Your task to perform on an android device: clear all cookies in the chrome app Image 0: 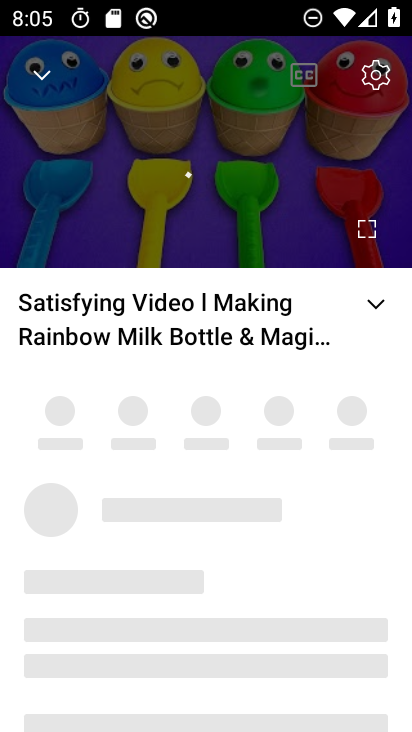
Step 0: press home button
Your task to perform on an android device: clear all cookies in the chrome app Image 1: 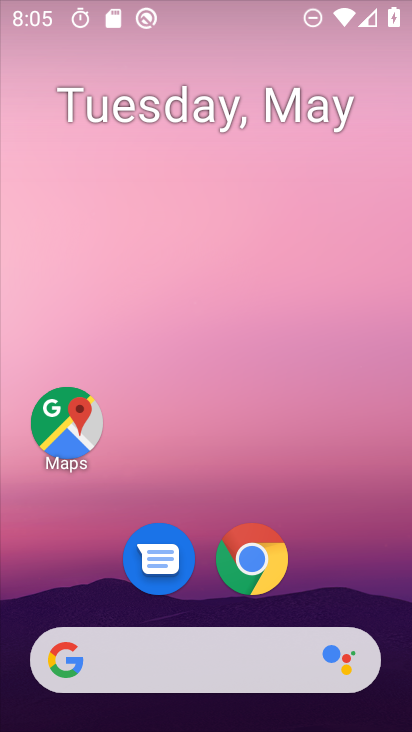
Step 1: drag from (381, 638) to (315, 12)
Your task to perform on an android device: clear all cookies in the chrome app Image 2: 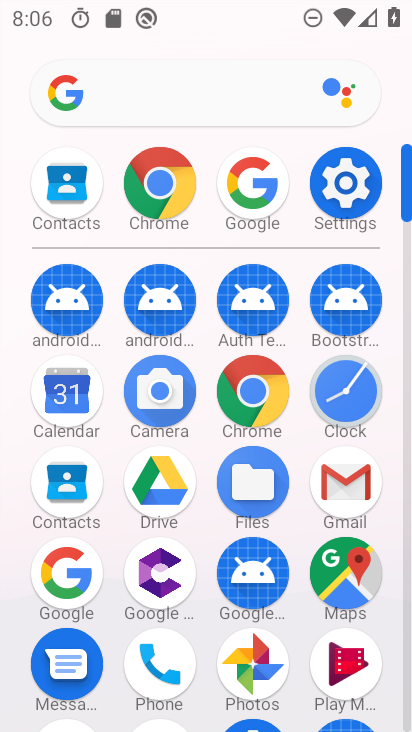
Step 2: click (169, 177)
Your task to perform on an android device: clear all cookies in the chrome app Image 3: 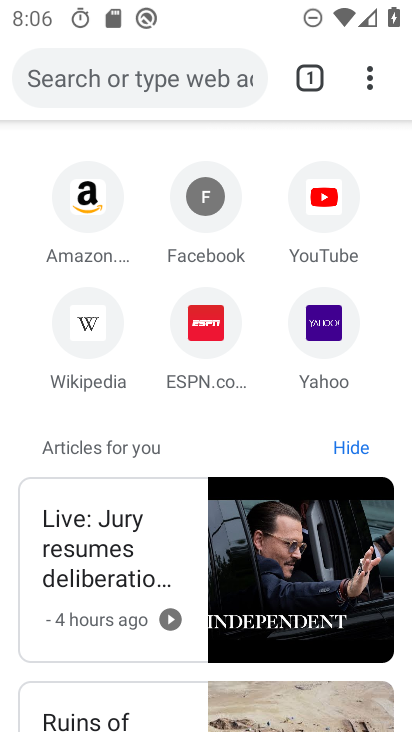
Step 3: click (367, 73)
Your task to perform on an android device: clear all cookies in the chrome app Image 4: 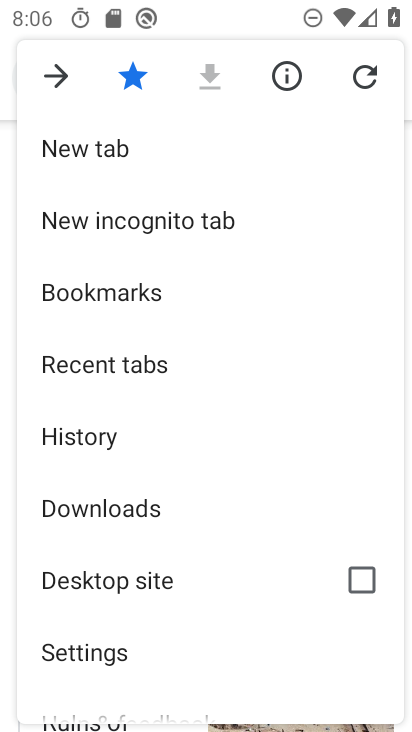
Step 4: click (123, 432)
Your task to perform on an android device: clear all cookies in the chrome app Image 5: 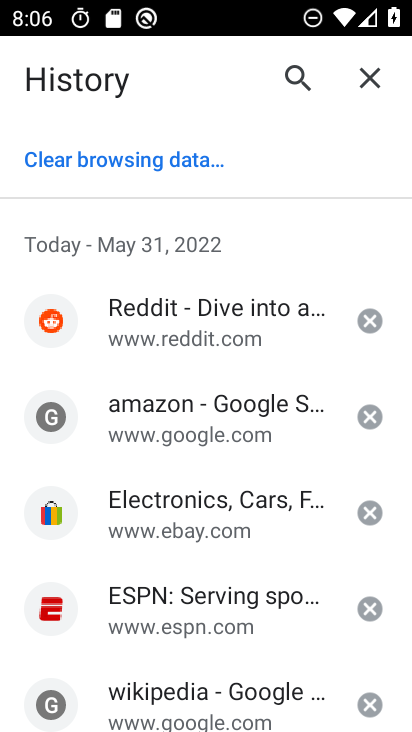
Step 5: click (172, 171)
Your task to perform on an android device: clear all cookies in the chrome app Image 6: 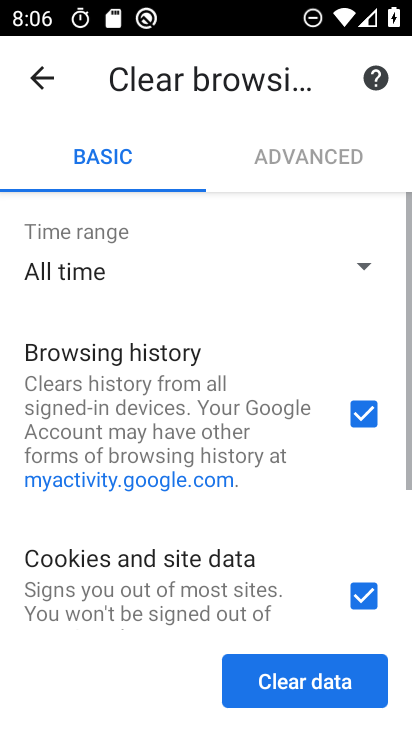
Step 6: click (273, 668)
Your task to perform on an android device: clear all cookies in the chrome app Image 7: 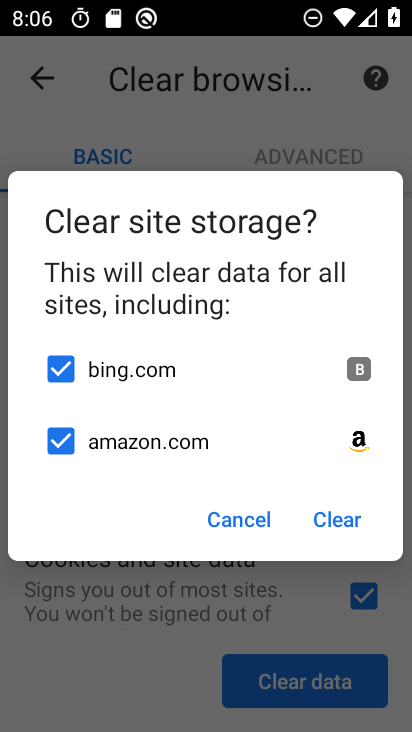
Step 7: click (364, 516)
Your task to perform on an android device: clear all cookies in the chrome app Image 8: 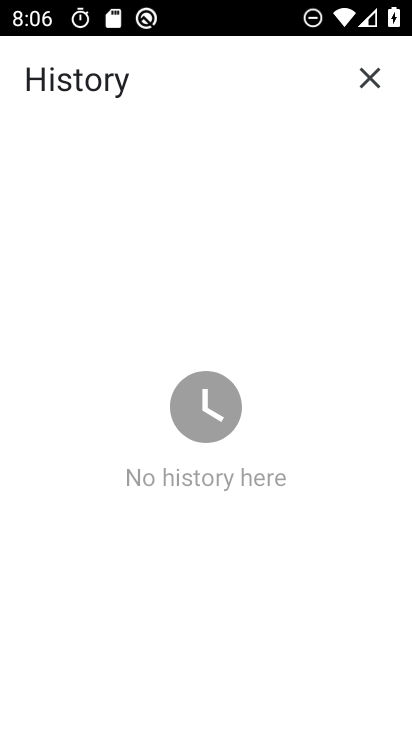
Step 8: task complete